Your task to perform on an android device: uninstall "Google News" Image 0: 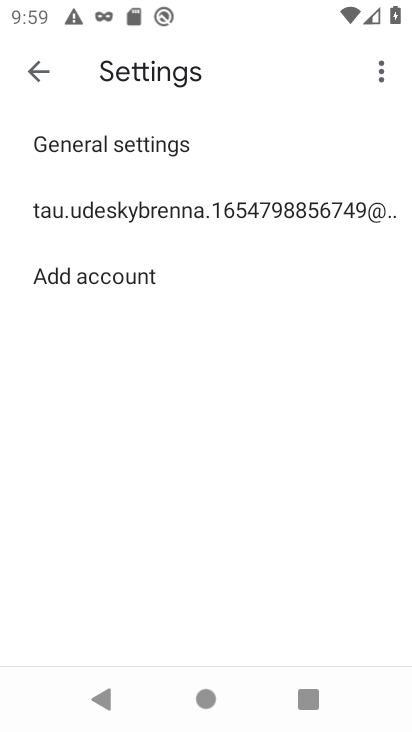
Step 0: press home button
Your task to perform on an android device: uninstall "Google News" Image 1: 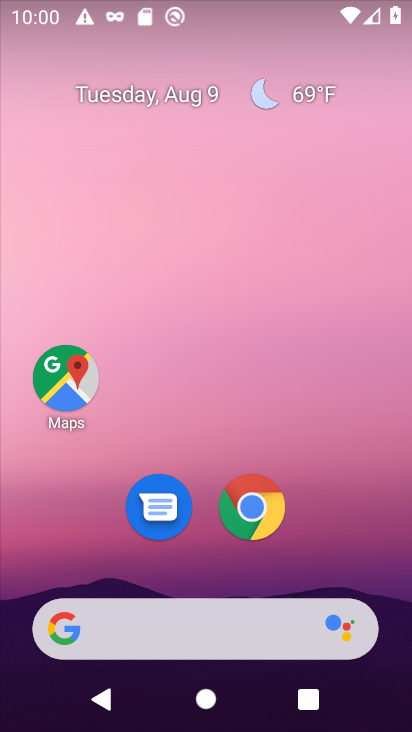
Step 1: drag from (149, 625) to (411, 102)
Your task to perform on an android device: uninstall "Google News" Image 2: 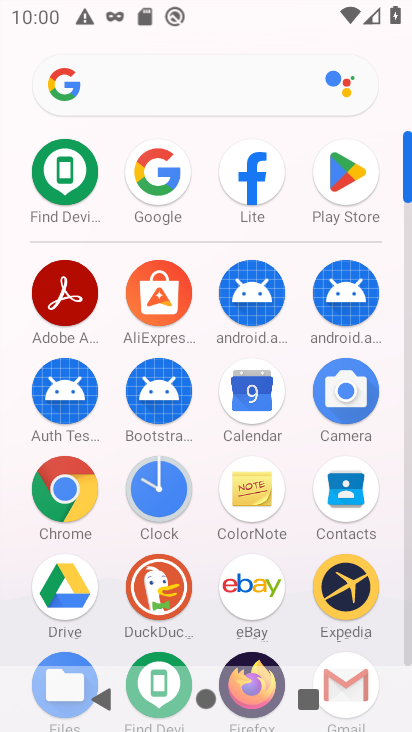
Step 2: click (354, 177)
Your task to perform on an android device: uninstall "Google News" Image 3: 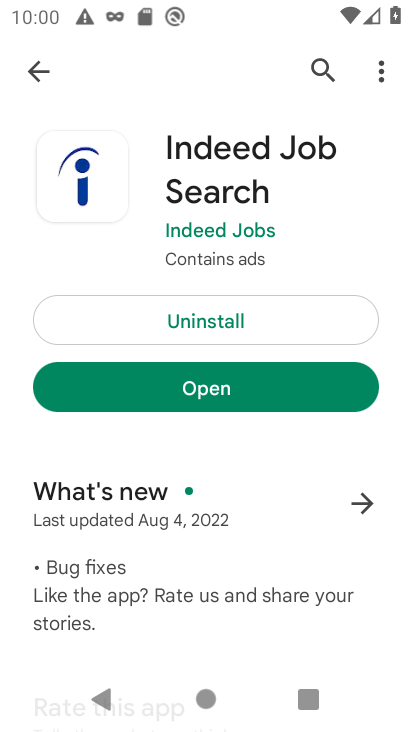
Step 3: click (320, 69)
Your task to perform on an android device: uninstall "Google News" Image 4: 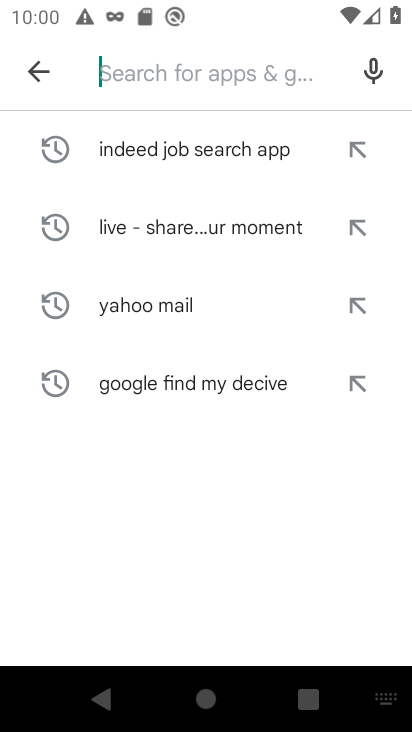
Step 4: type "Google News"
Your task to perform on an android device: uninstall "Google News" Image 5: 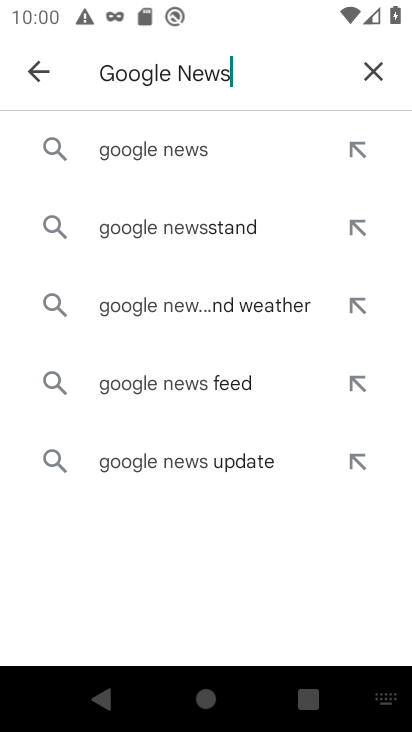
Step 5: click (185, 157)
Your task to perform on an android device: uninstall "Google News" Image 6: 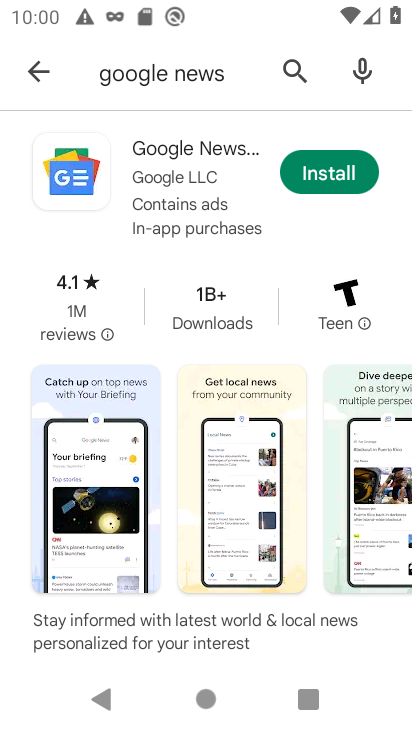
Step 6: task complete